Your task to perform on an android device: change notifications settings Image 0: 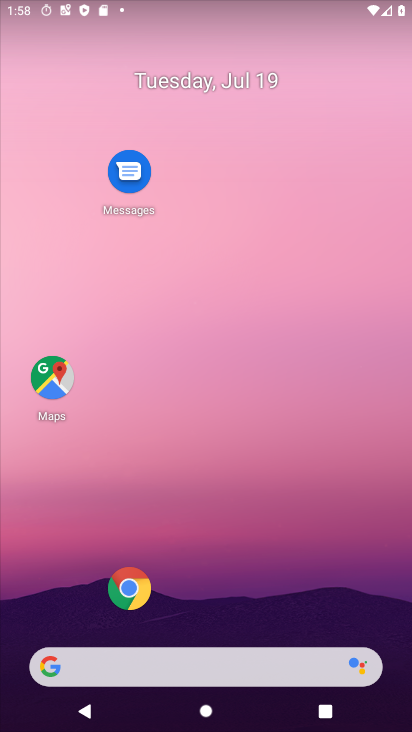
Step 0: click (318, 110)
Your task to perform on an android device: change notifications settings Image 1: 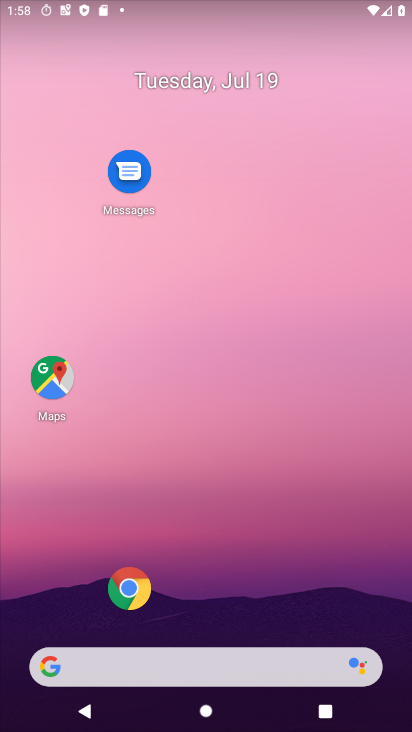
Step 1: drag from (16, 716) to (266, 151)
Your task to perform on an android device: change notifications settings Image 2: 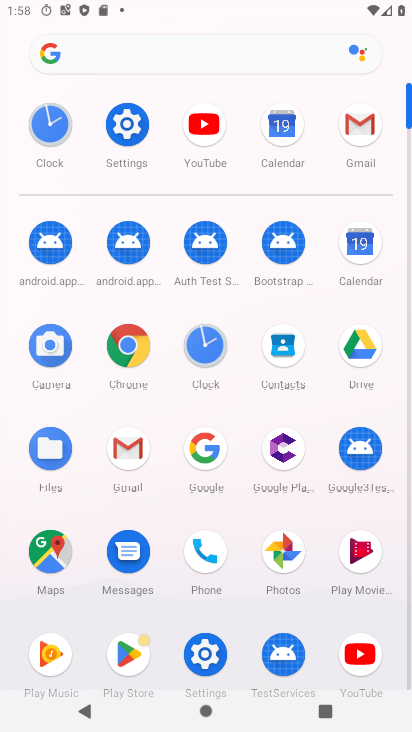
Step 2: drag from (165, 641) to (186, 669)
Your task to perform on an android device: change notifications settings Image 3: 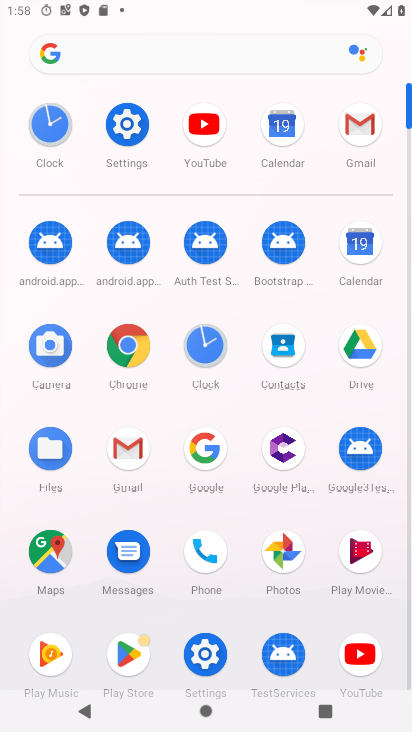
Step 3: click (207, 653)
Your task to perform on an android device: change notifications settings Image 4: 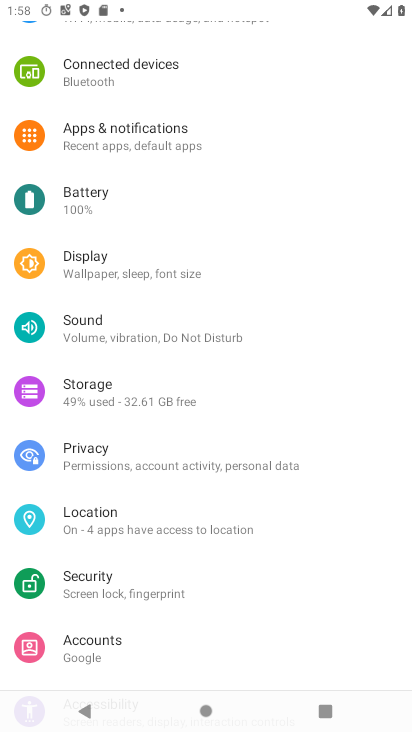
Step 4: click (124, 132)
Your task to perform on an android device: change notifications settings Image 5: 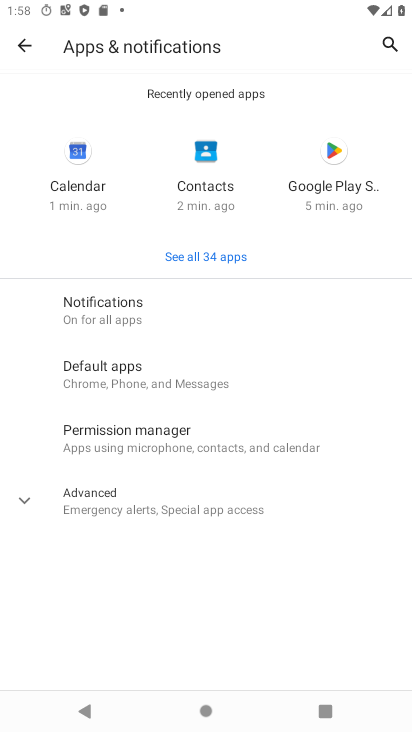
Step 5: task complete